Your task to perform on an android device: toggle javascript in the chrome app Image 0: 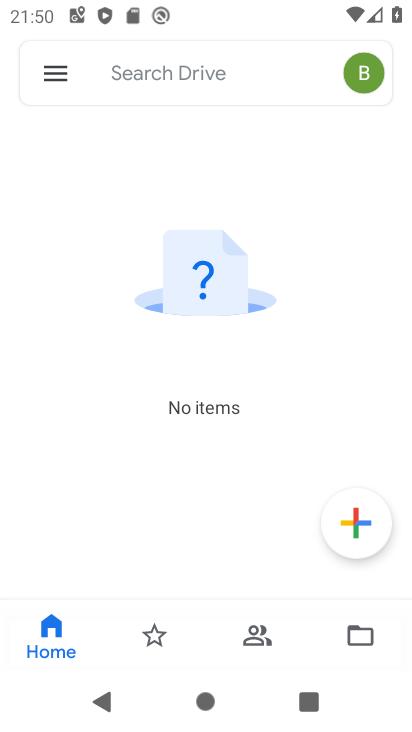
Step 0: press home button
Your task to perform on an android device: toggle javascript in the chrome app Image 1: 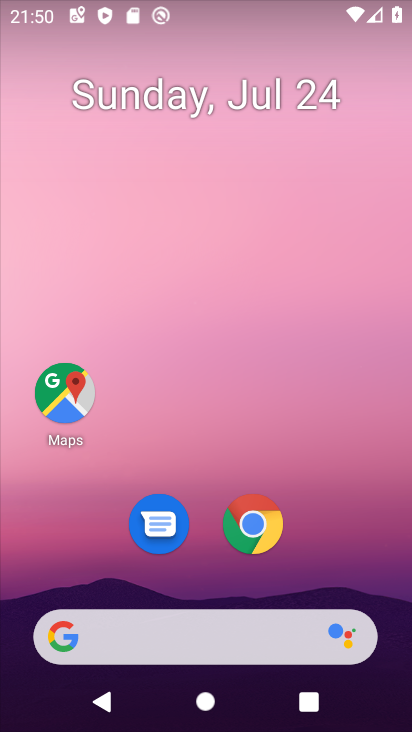
Step 1: click (257, 528)
Your task to perform on an android device: toggle javascript in the chrome app Image 2: 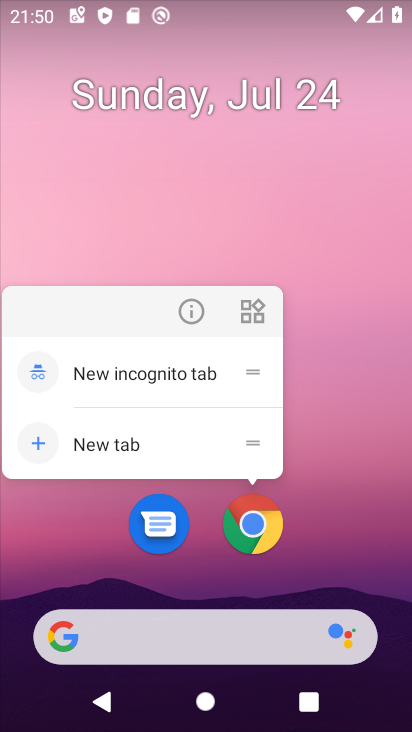
Step 2: click (256, 532)
Your task to perform on an android device: toggle javascript in the chrome app Image 3: 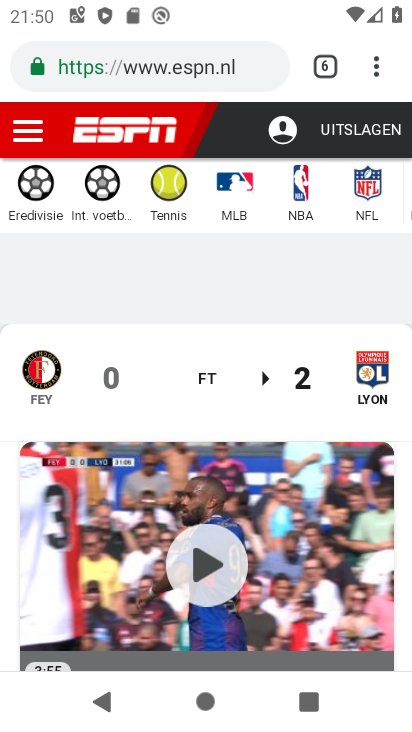
Step 3: drag from (379, 72) to (275, 523)
Your task to perform on an android device: toggle javascript in the chrome app Image 4: 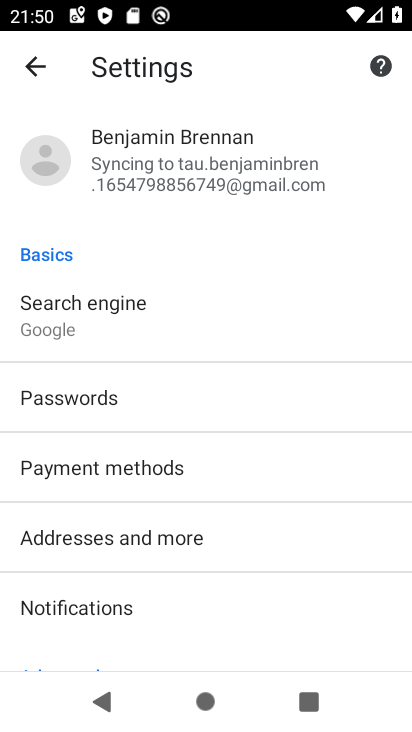
Step 4: drag from (210, 629) to (282, 285)
Your task to perform on an android device: toggle javascript in the chrome app Image 5: 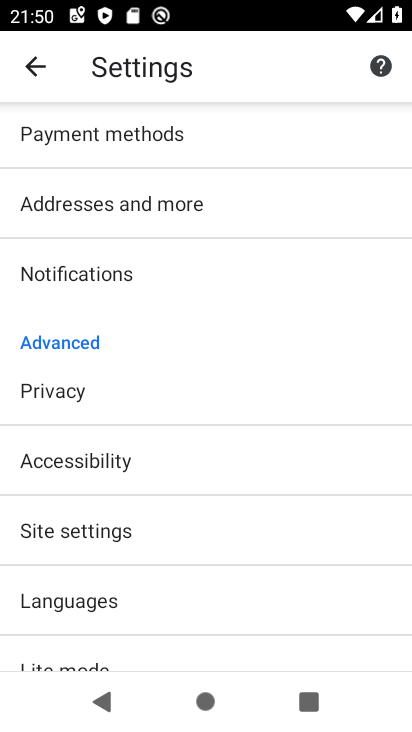
Step 5: click (156, 542)
Your task to perform on an android device: toggle javascript in the chrome app Image 6: 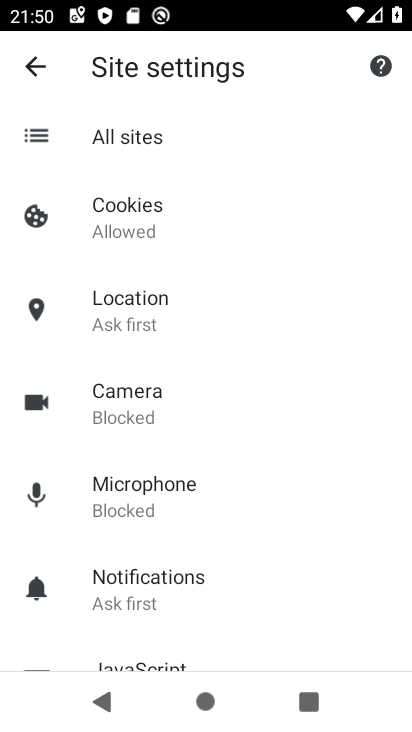
Step 6: drag from (240, 633) to (273, 399)
Your task to perform on an android device: toggle javascript in the chrome app Image 7: 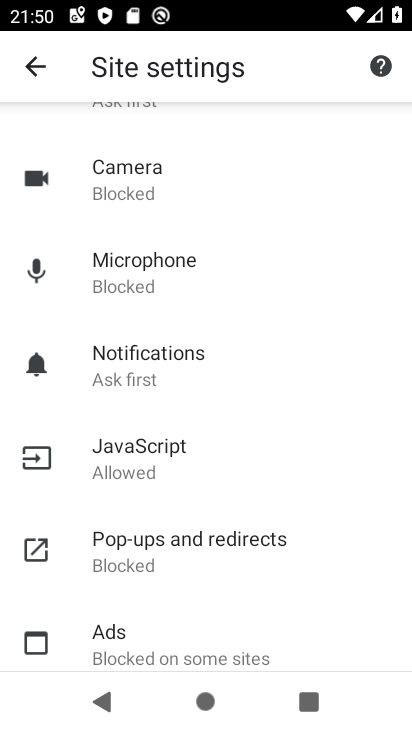
Step 7: click (177, 449)
Your task to perform on an android device: toggle javascript in the chrome app Image 8: 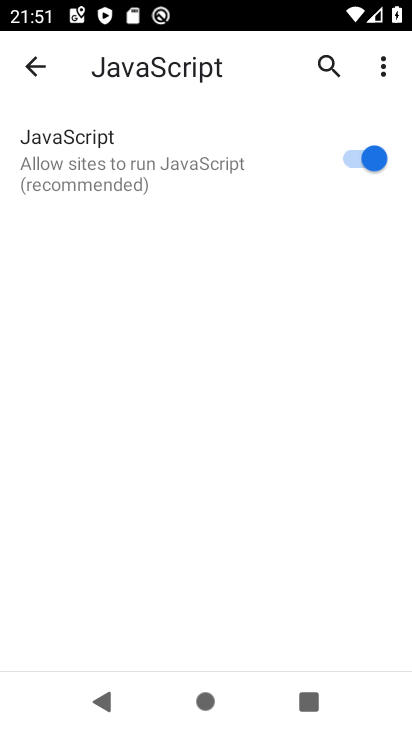
Step 8: click (351, 160)
Your task to perform on an android device: toggle javascript in the chrome app Image 9: 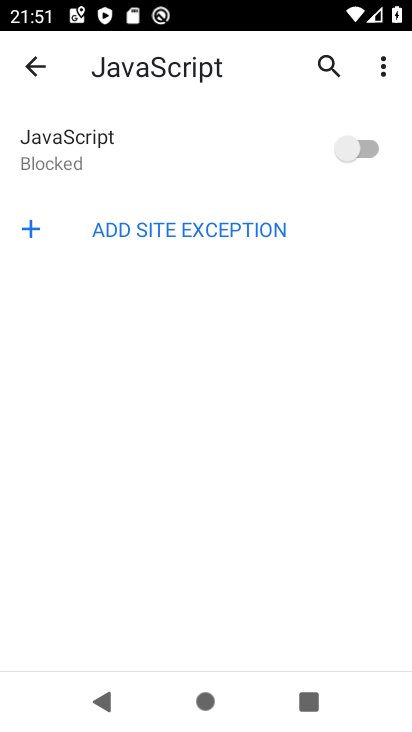
Step 9: task complete